Your task to perform on an android device: toggle notification dots Image 0: 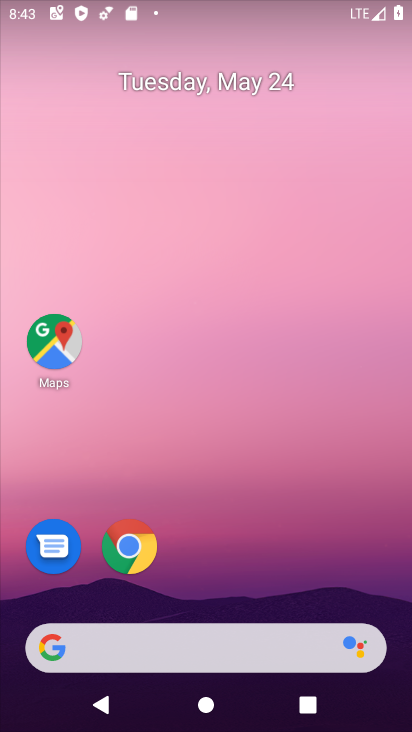
Step 0: drag from (278, 527) to (291, 4)
Your task to perform on an android device: toggle notification dots Image 1: 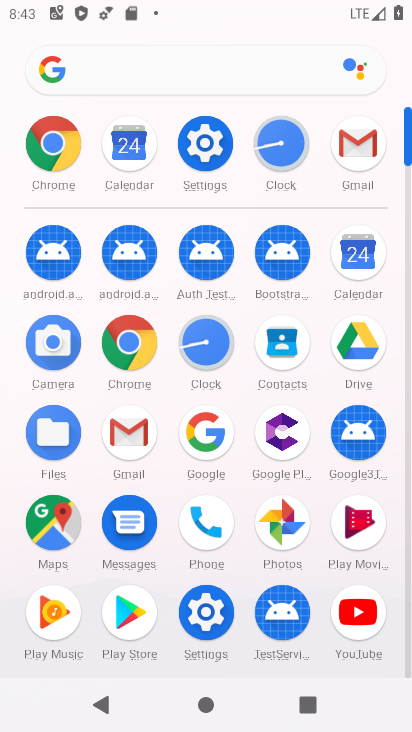
Step 1: click (200, 140)
Your task to perform on an android device: toggle notification dots Image 2: 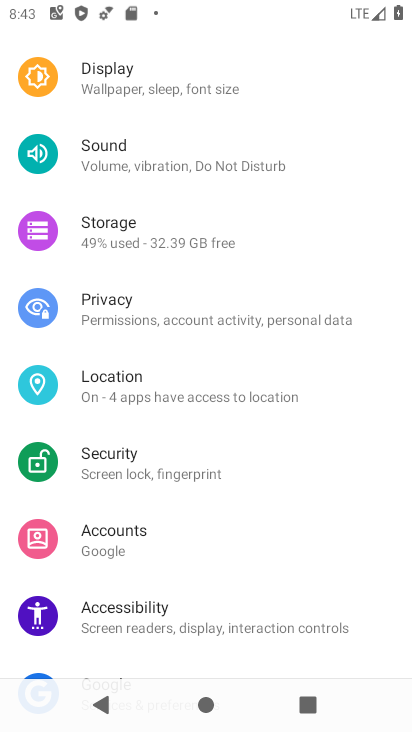
Step 2: drag from (208, 245) to (191, 615)
Your task to perform on an android device: toggle notification dots Image 3: 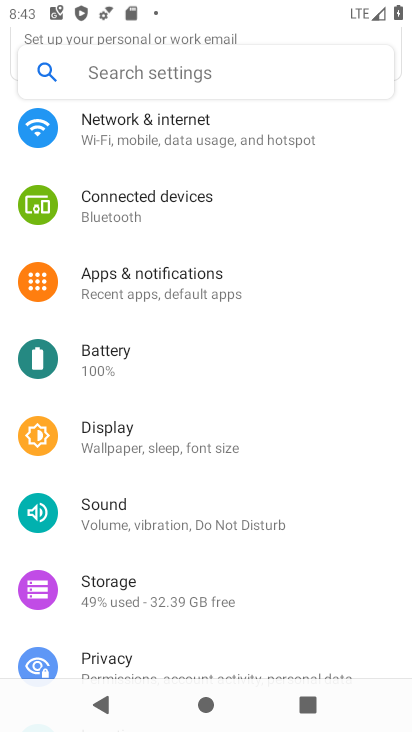
Step 3: click (202, 293)
Your task to perform on an android device: toggle notification dots Image 4: 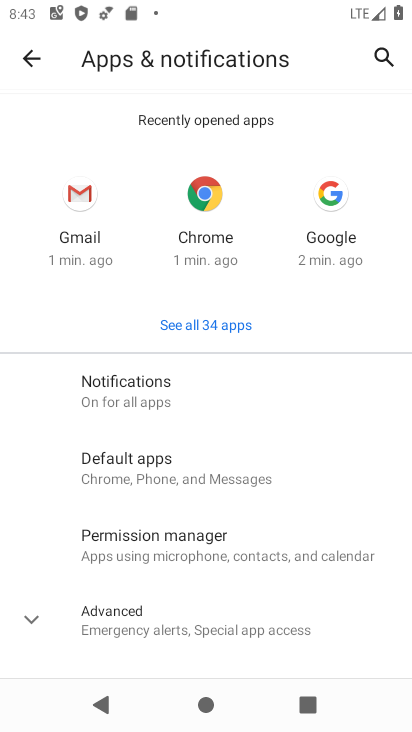
Step 4: click (210, 397)
Your task to perform on an android device: toggle notification dots Image 5: 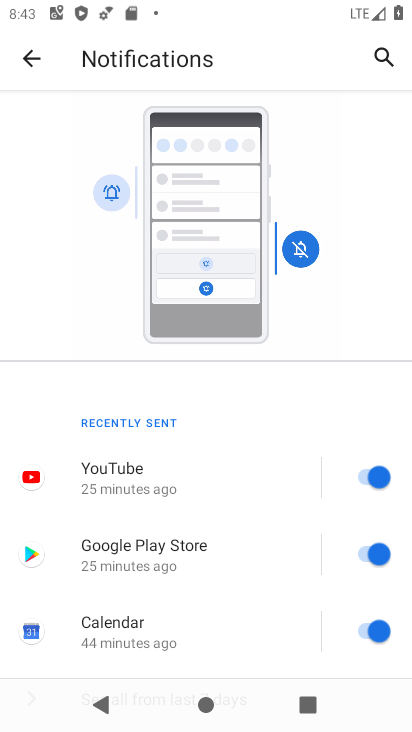
Step 5: drag from (212, 573) to (272, 119)
Your task to perform on an android device: toggle notification dots Image 6: 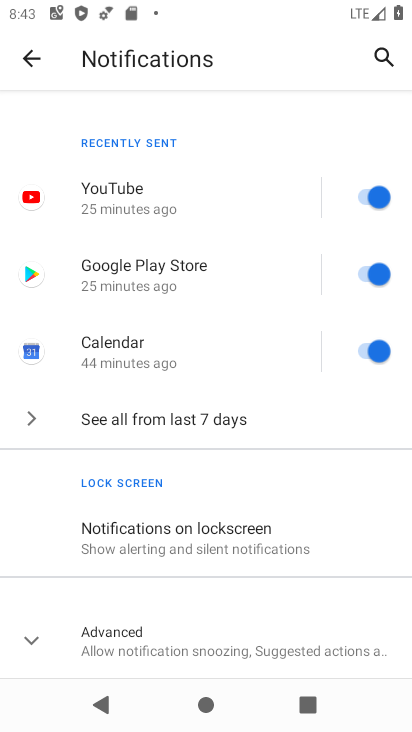
Step 6: click (37, 627)
Your task to perform on an android device: toggle notification dots Image 7: 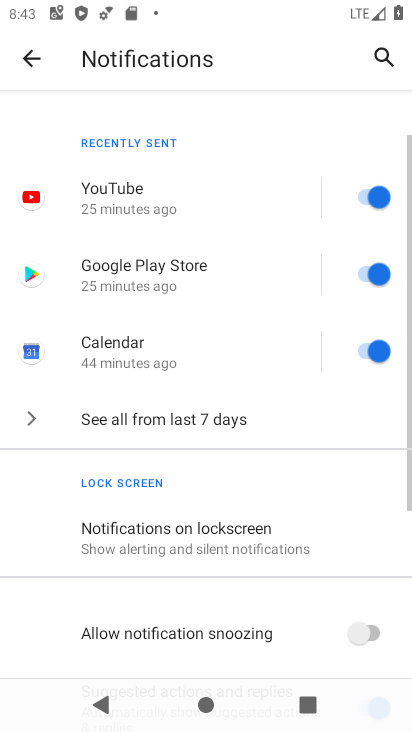
Step 7: drag from (198, 569) to (215, 150)
Your task to perform on an android device: toggle notification dots Image 8: 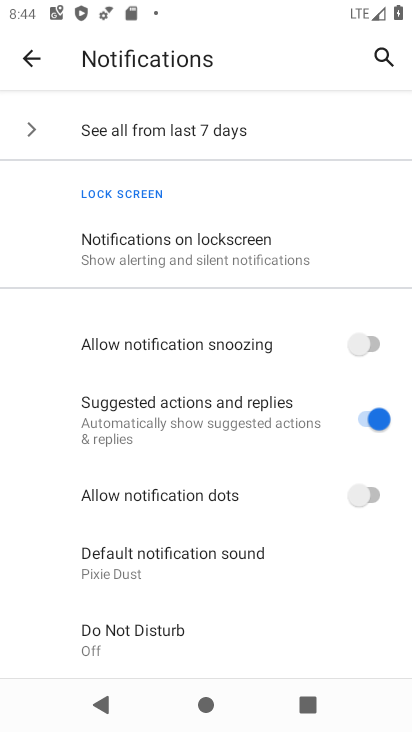
Step 8: click (357, 489)
Your task to perform on an android device: toggle notification dots Image 9: 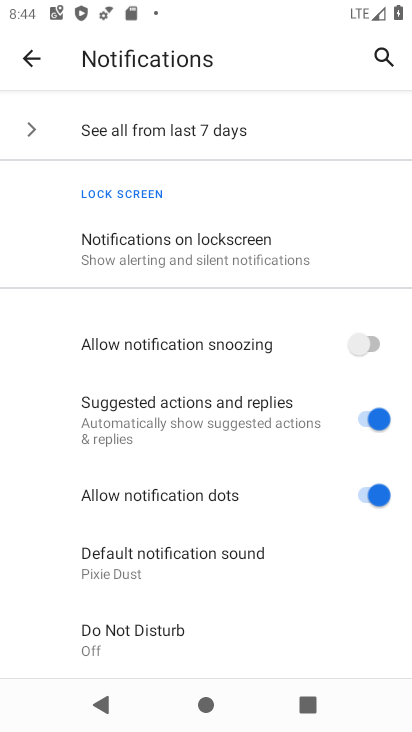
Step 9: task complete